Your task to perform on an android device: Go to wifi settings Image 0: 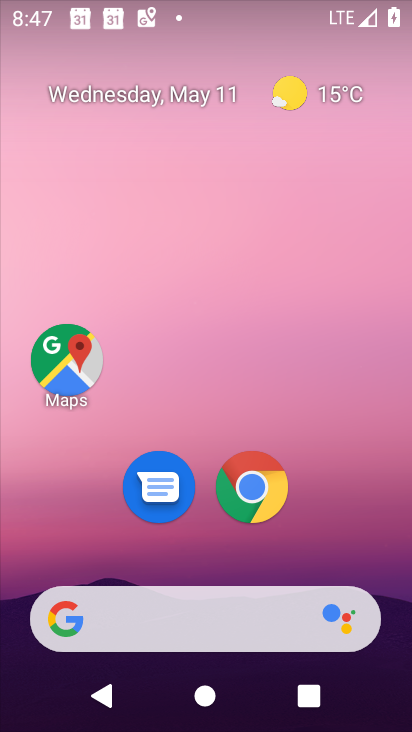
Step 0: drag from (246, 661) to (178, 189)
Your task to perform on an android device: Go to wifi settings Image 1: 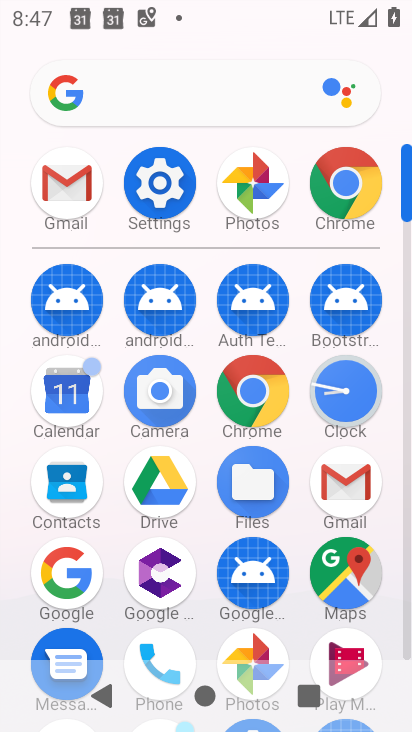
Step 1: click (152, 196)
Your task to perform on an android device: Go to wifi settings Image 2: 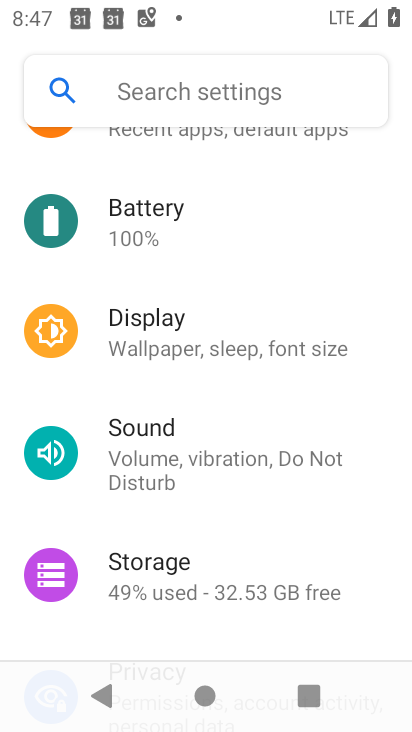
Step 2: drag from (132, 514) to (110, 570)
Your task to perform on an android device: Go to wifi settings Image 3: 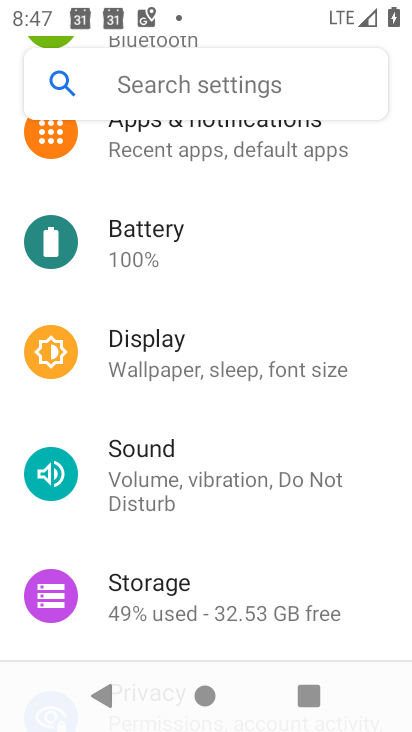
Step 3: drag from (154, 245) to (142, 516)
Your task to perform on an android device: Go to wifi settings Image 4: 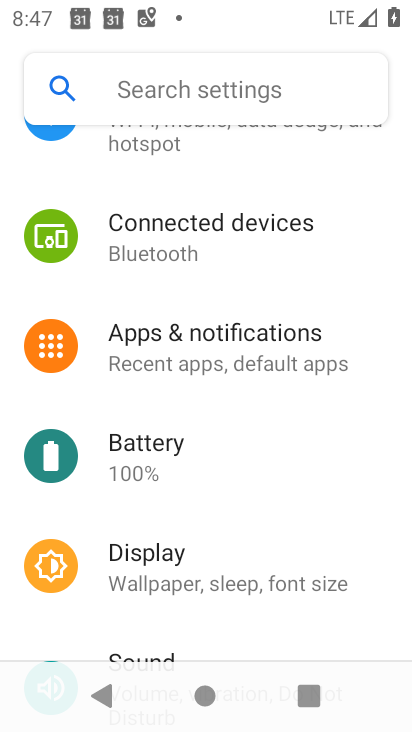
Step 4: drag from (177, 212) to (178, 429)
Your task to perform on an android device: Go to wifi settings Image 5: 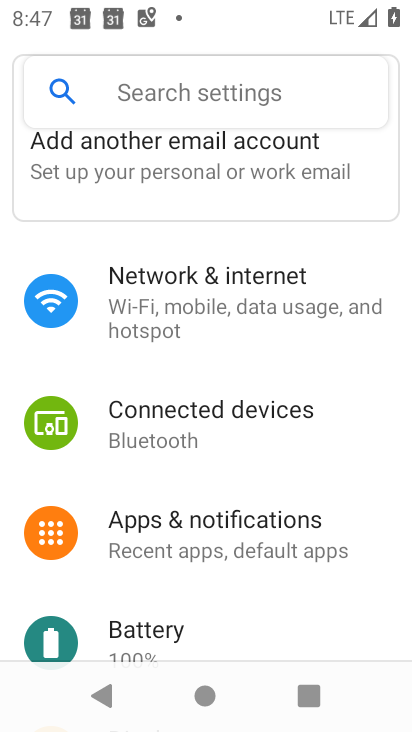
Step 5: click (152, 307)
Your task to perform on an android device: Go to wifi settings Image 6: 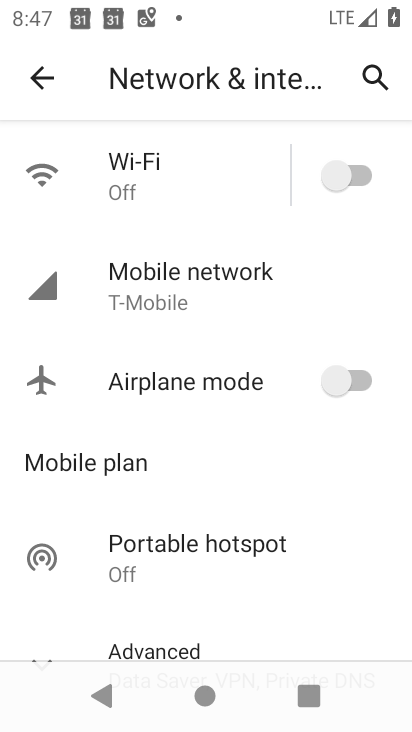
Step 6: click (168, 189)
Your task to perform on an android device: Go to wifi settings Image 7: 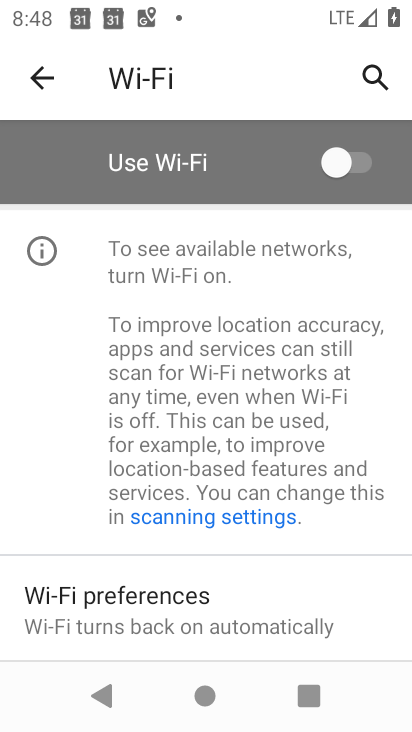
Step 7: task complete